Your task to perform on an android device: install app "Firefox Browser" Image 0: 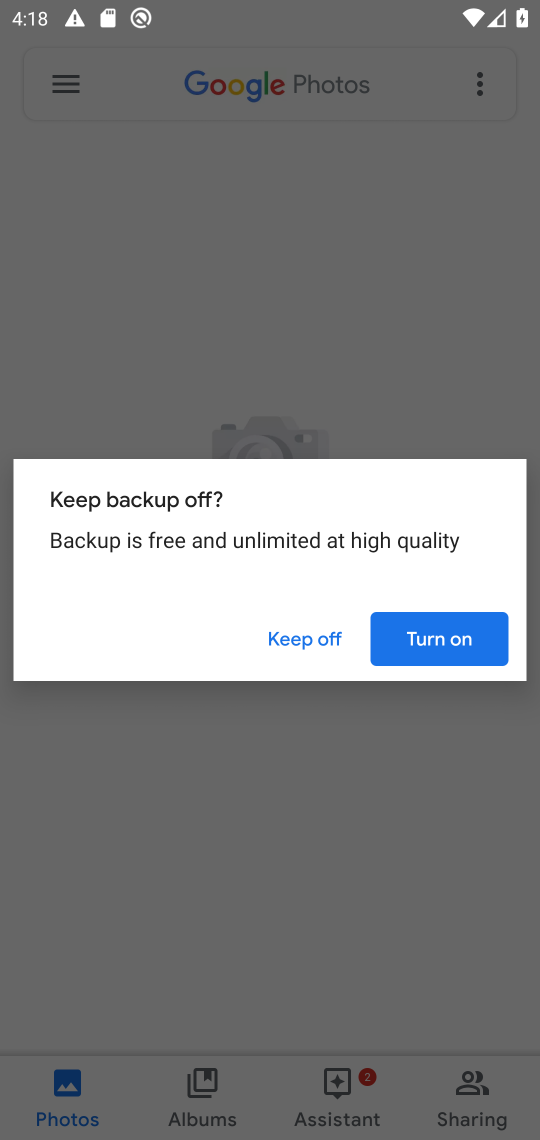
Step 0: click (282, 632)
Your task to perform on an android device: install app "Firefox Browser" Image 1: 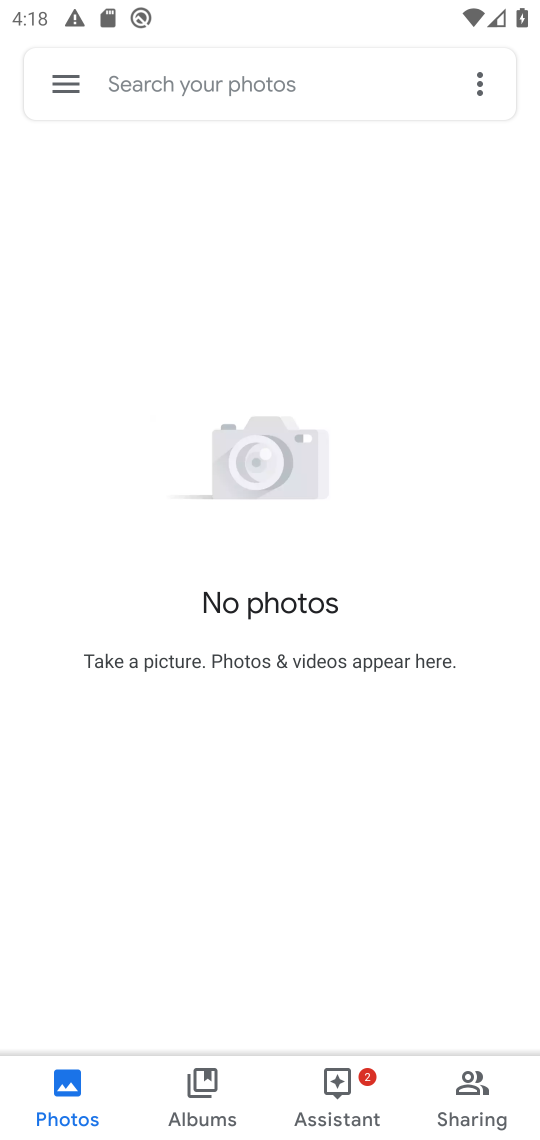
Step 1: press back button
Your task to perform on an android device: install app "Firefox Browser" Image 2: 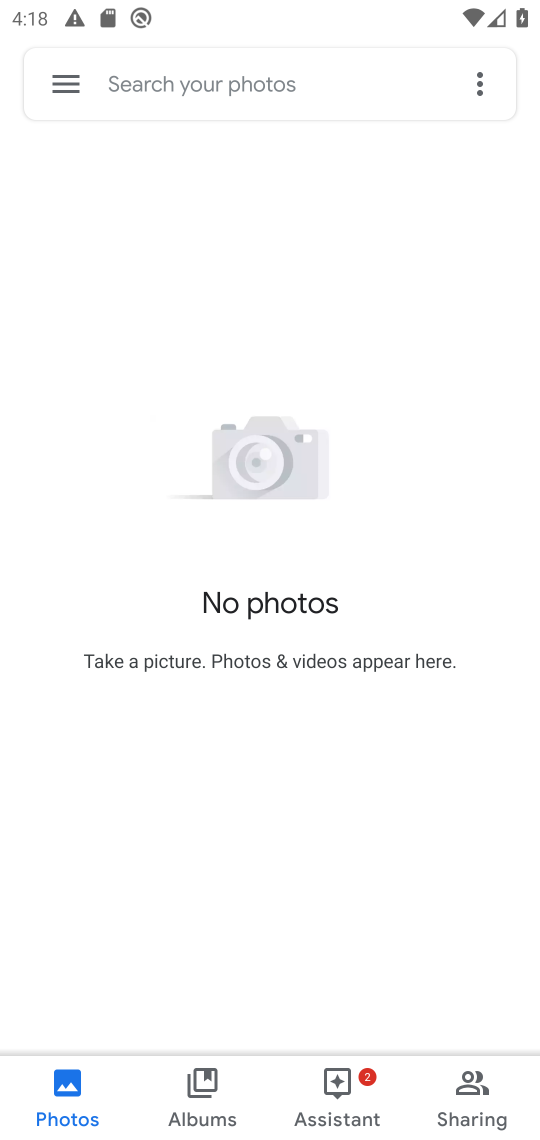
Step 2: press back button
Your task to perform on an android device: install app "Firefox Browser" Image 3: 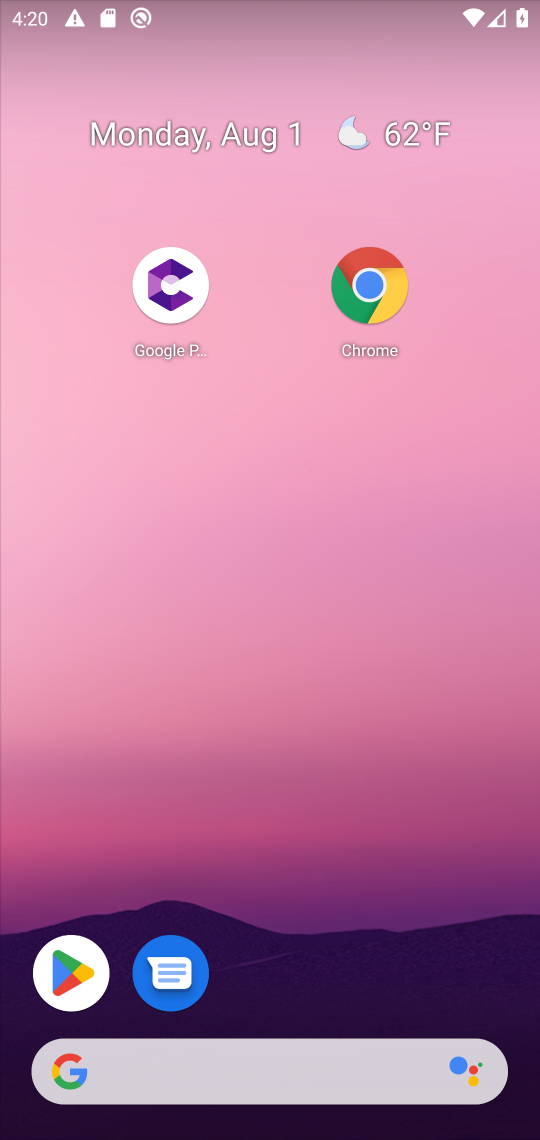
Step 3: drag from (228, 856) to (317, 70)
Your task to perform on an android device: install app "Firefox Browser" Image 4: 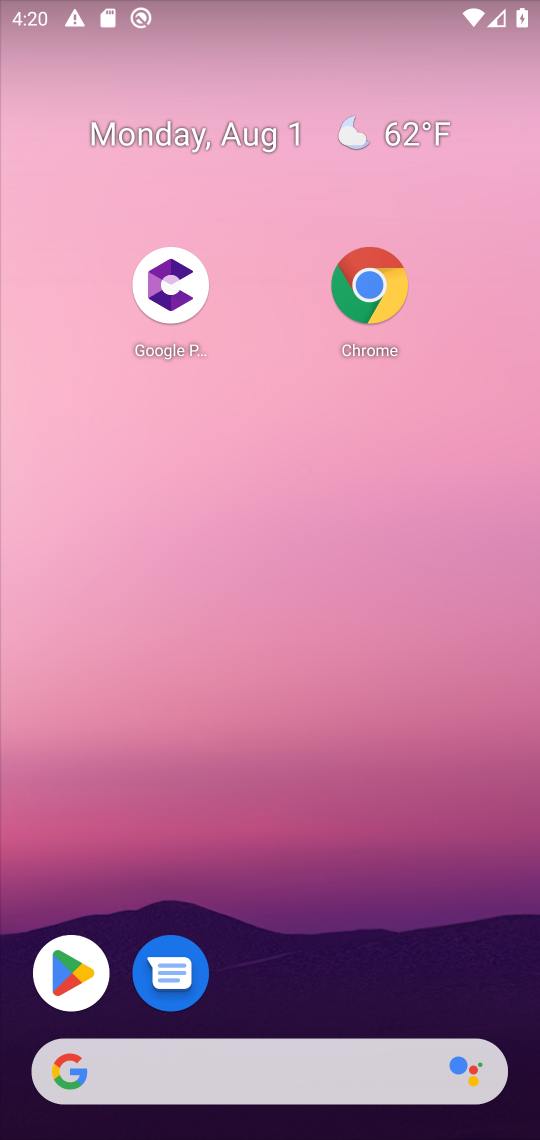
Step 4: drag from (374, 922) to (287, 185)
Your task to perform on an android device: install app "Firefox Browser" Image 5: 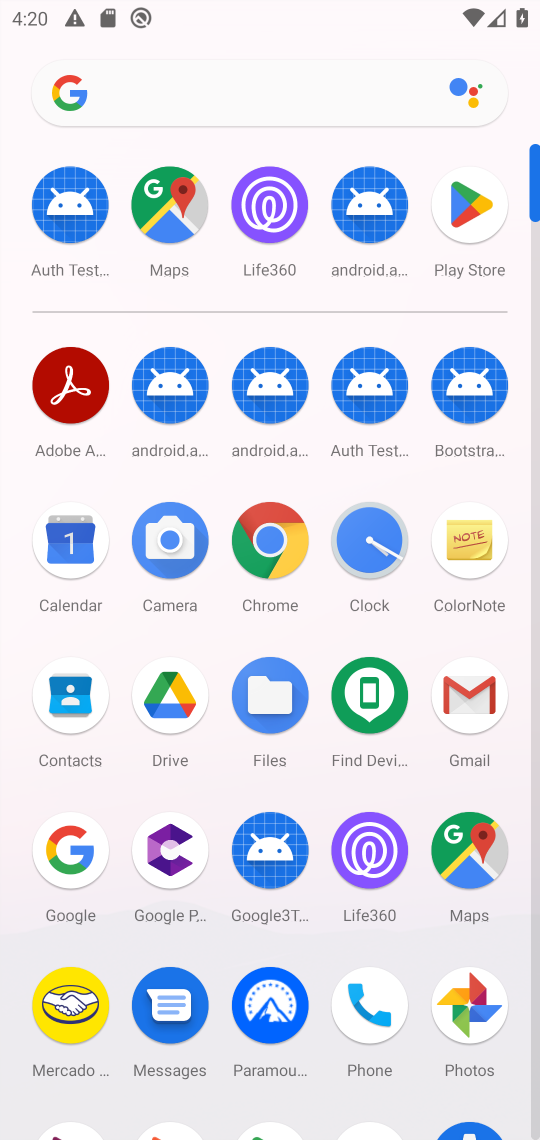
Step 5: click (529, 646)
Your task to perform on an android device: install app "Firefox Browser" Image 6: 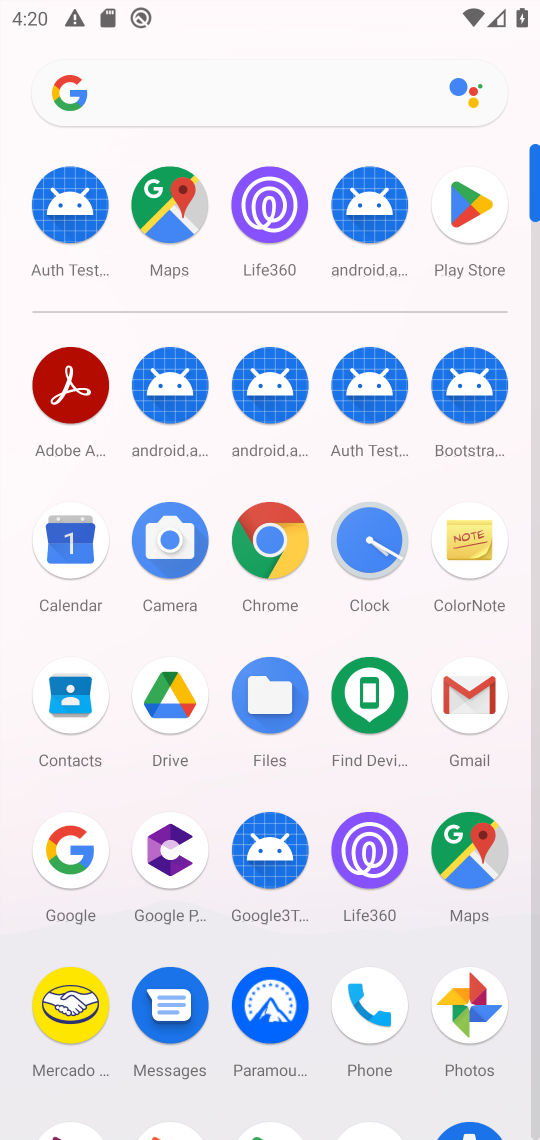
Step 6: click (456, 216)
Your task to perform on an android device: install app "Firefox Browser" Image 7: 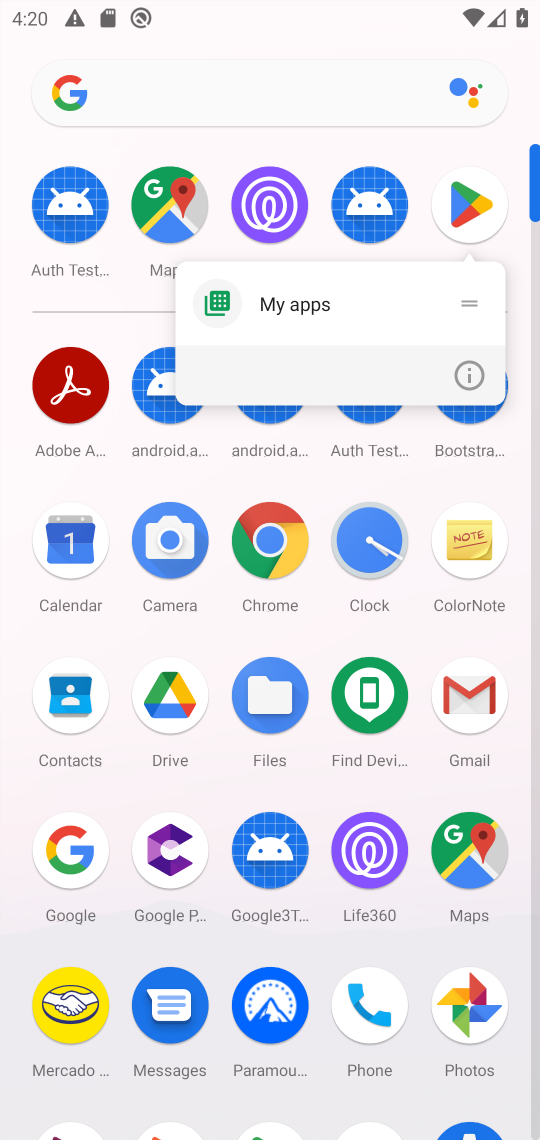
Step 7: click (460, 220)
Your task to perform on an android device: install app "Firefox Browser" Image 8: 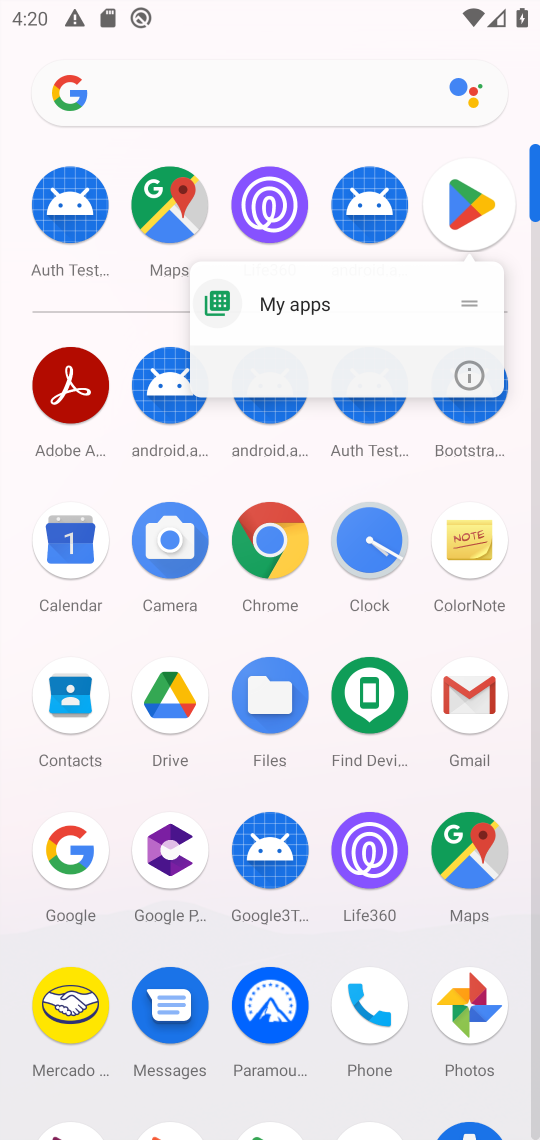
Step 8: click (460, 221)
Your task to perform on an android device: install app "Firefox Browser" Image 9: 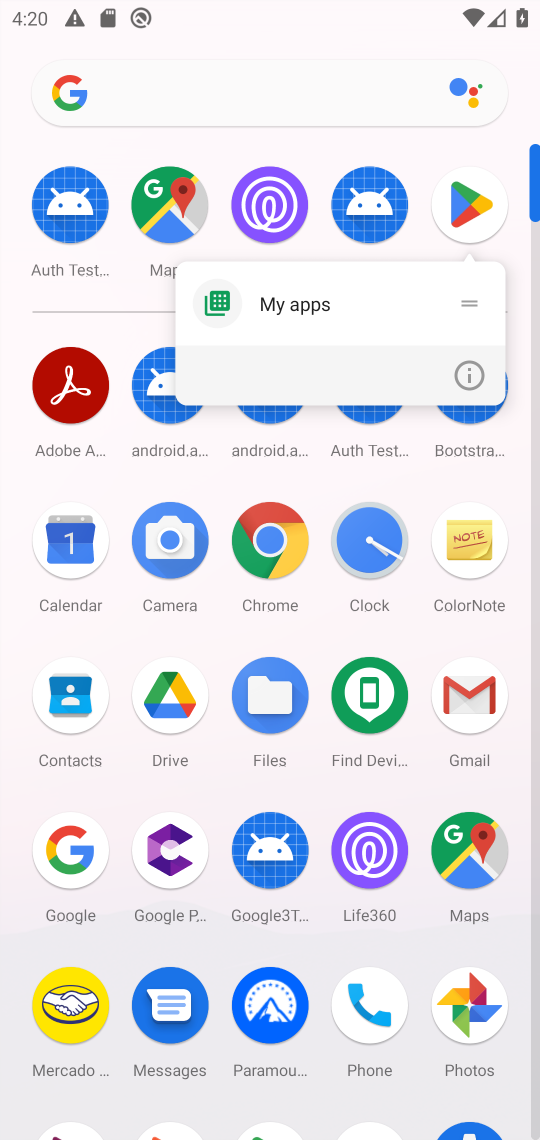
Step 9: click (460, 221)
Your task to perform on an android device: install app "Firefox Browser" Image 10: 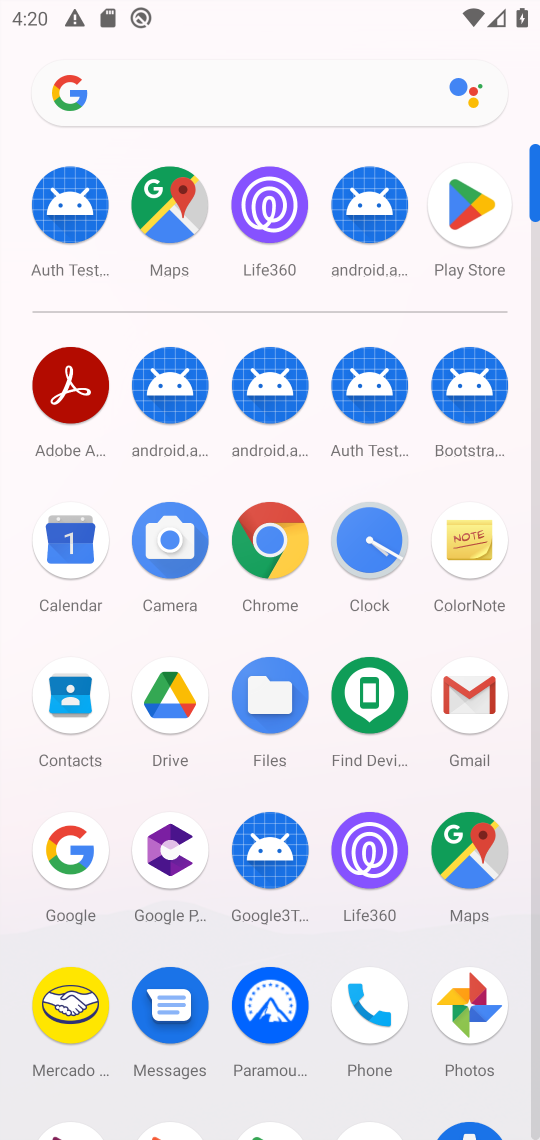
Step 10: click (459, 221)
Your task to perform on an android device: install app "Firefox Browser" Image 11: 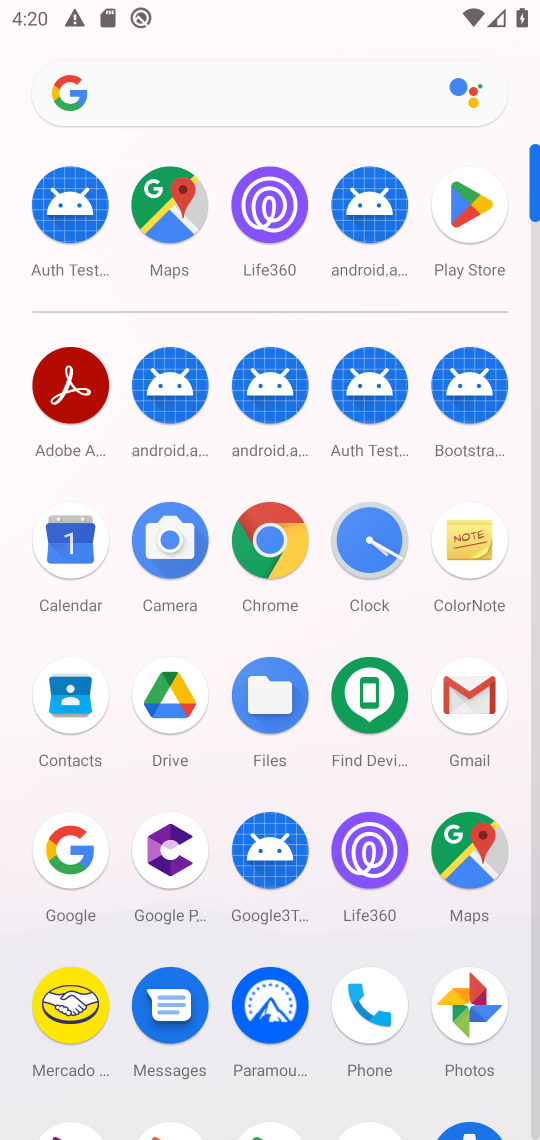
Step 11: click (457, 221)
Your task to perform on an android device: install app "Firefox Browser" Image 12: 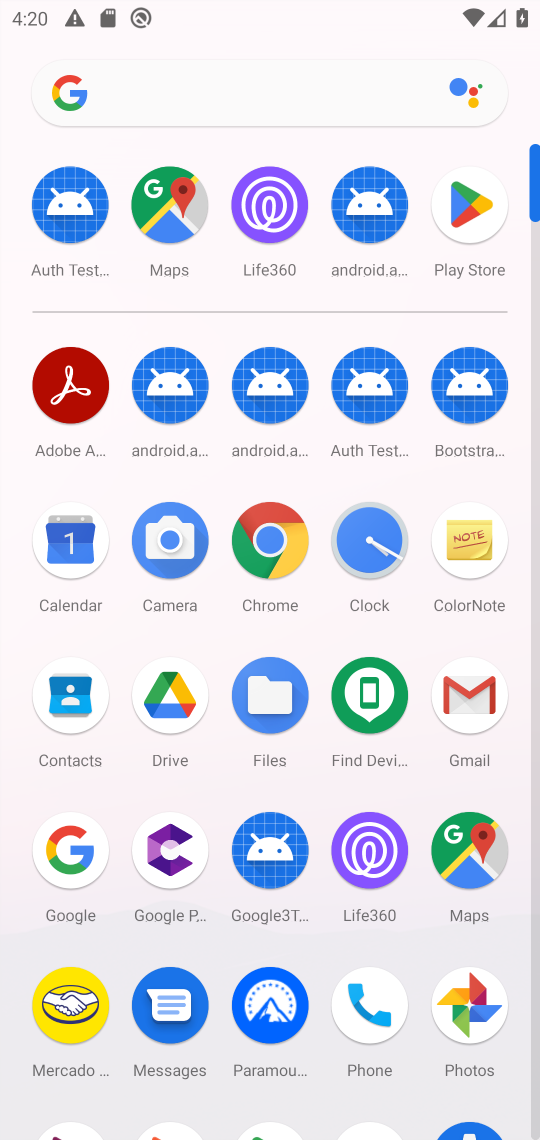
Step 12: click (457, 221)
Your task to perform on an android device: install app "Firefox Browser" Image 13: 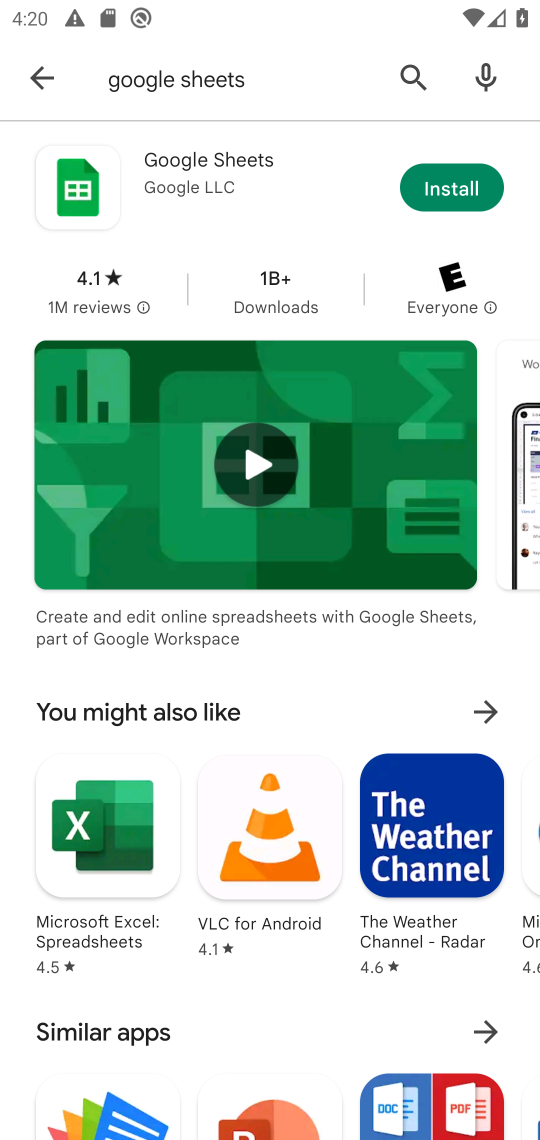
Step 13: click (453, 232)
Your task to perform on an android device: install app "Firefox Browser" Image 14: 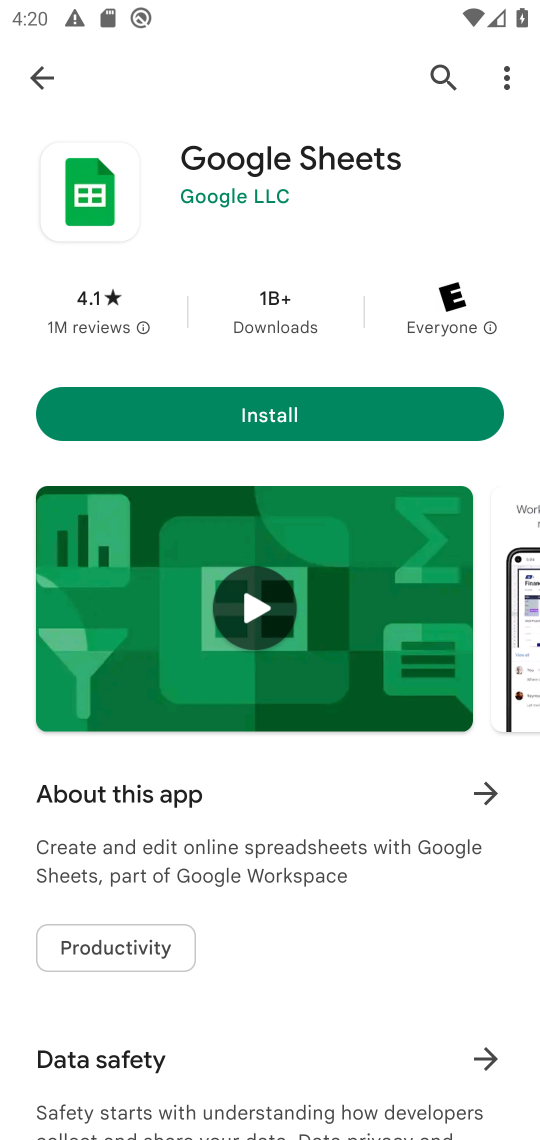
Step 14: click (40, 83)
Your task to perform on an android device: install app "Firefox Browser" Image 15: 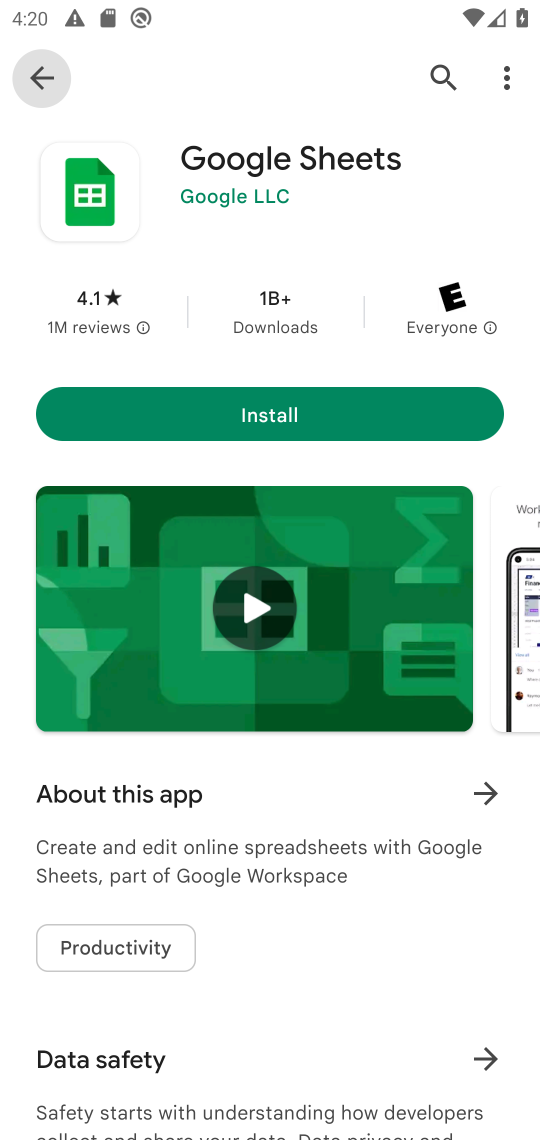
Step 15: click (38, 82)
Your task to perform on an android device: install app "Firefox Browser" Image 16: 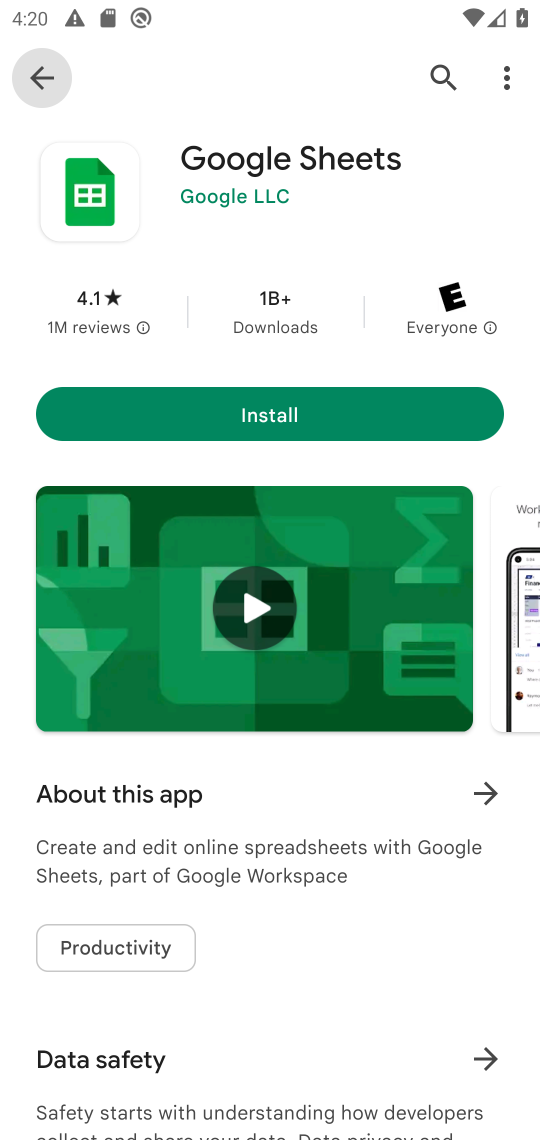
Step 16: click (35, 79)
Your task to perform on an android device: install app "Firefox Browser" Image 17: 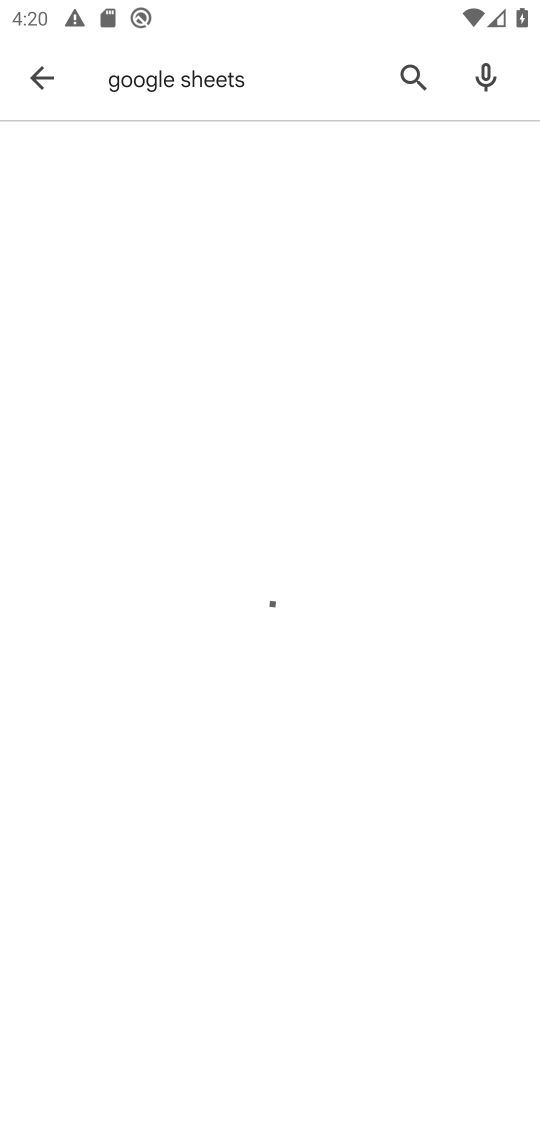
Step 17: click (38, 76)
Your task to perform on an android device: install app "Firefox Browser" Image 18: 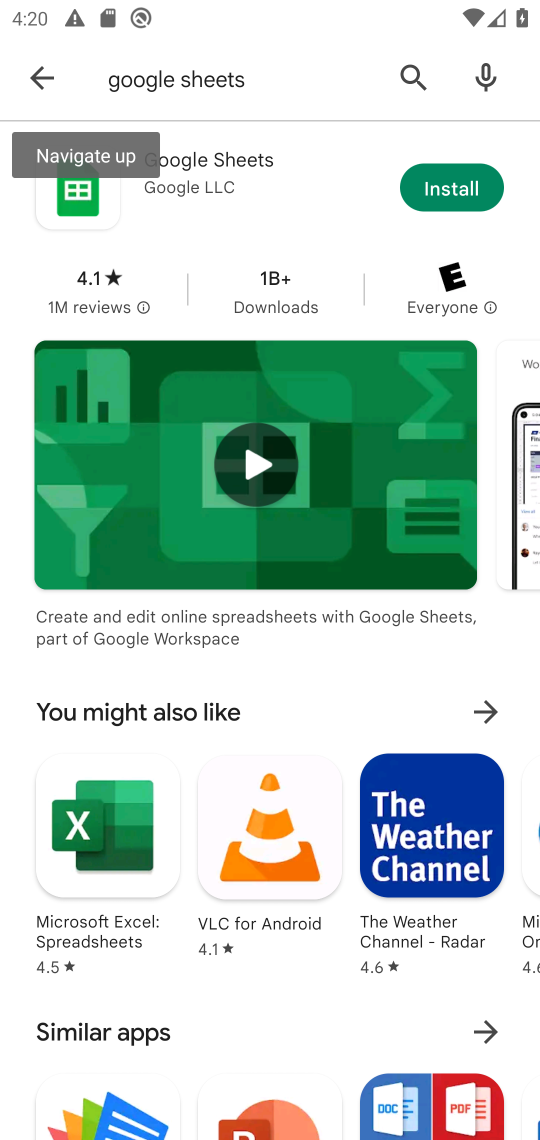
Step 18: click (1, 69)
Your task to perform on an android device: install app "Firefox Browser" Image 19: 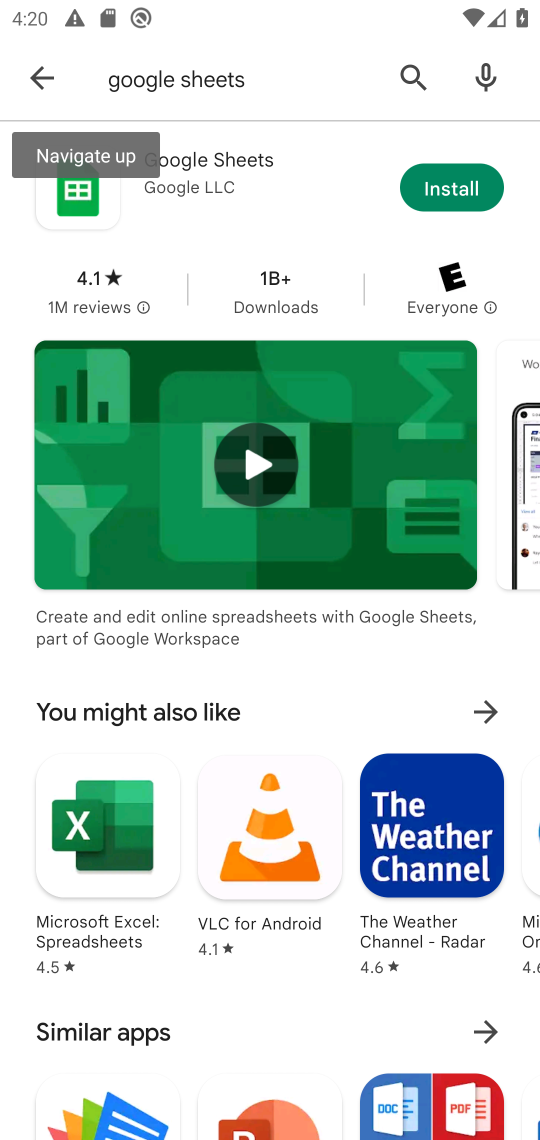
Step 19: click (30, 50)
Your task to perform on an android device: install app "Firefox Browser" Image 20: 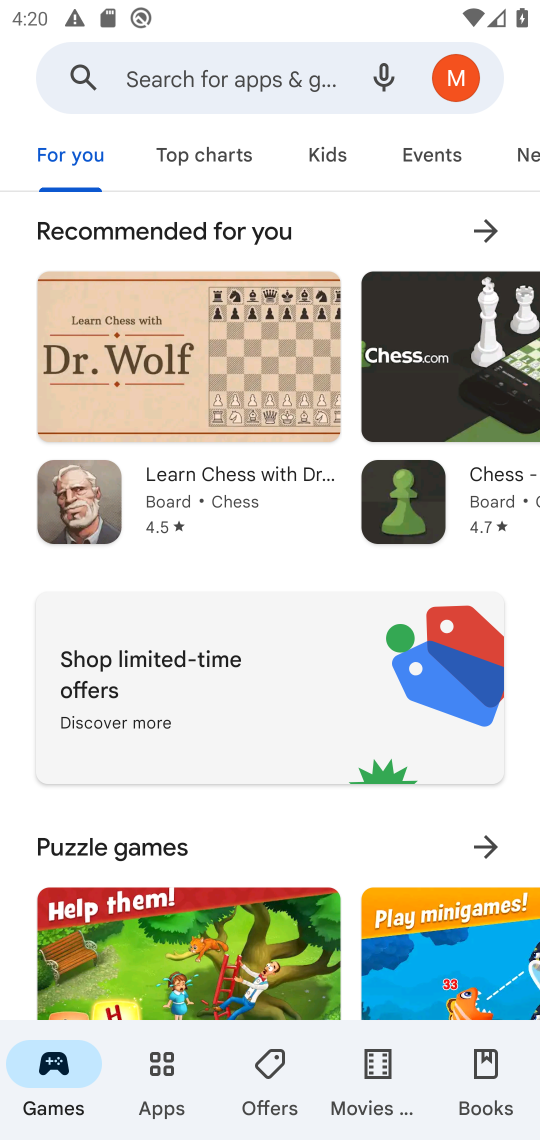
Step 20: click (183, 73)
Your task to perform on an android device: install app "Firefox Browser" Image 21: 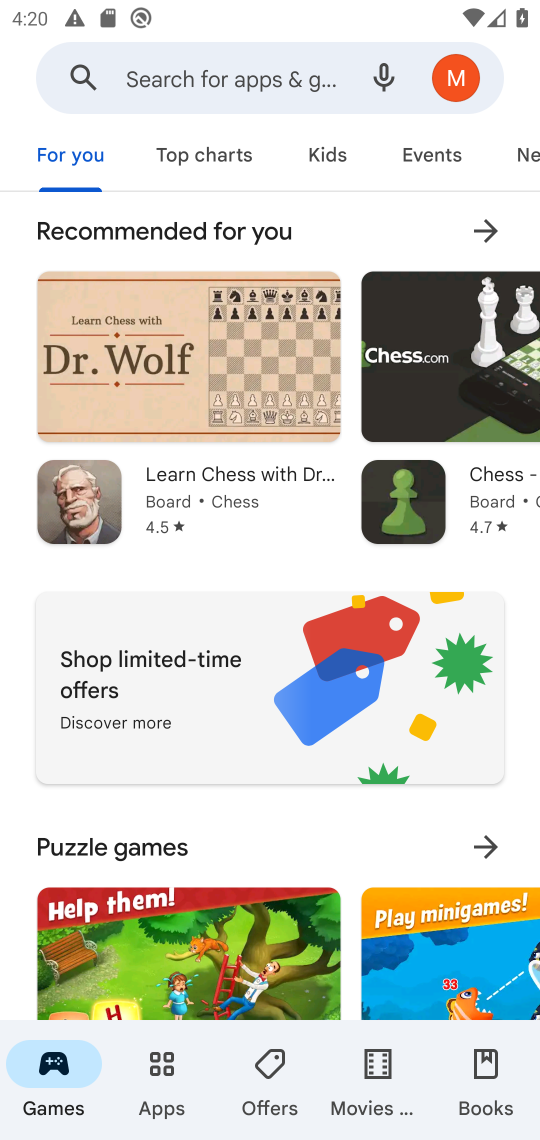
Step 21: click (184, 70)
Your task to perform on an android device: install app "Firefox Browser" Image 22: 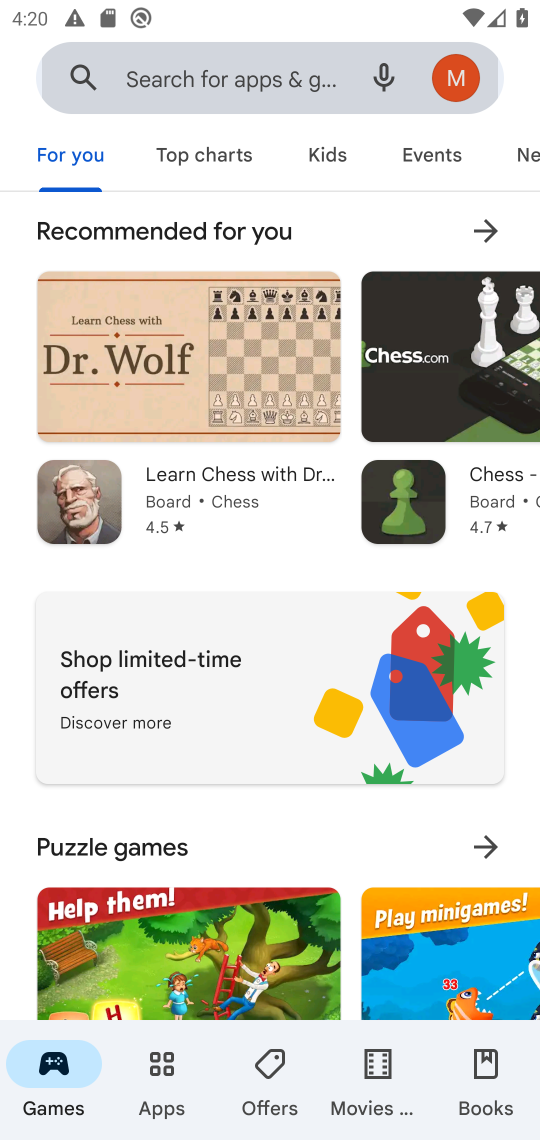
Step 22: click (184, 70)
Your task to perform on an android device: install app "Firefox Browser" Image 23: 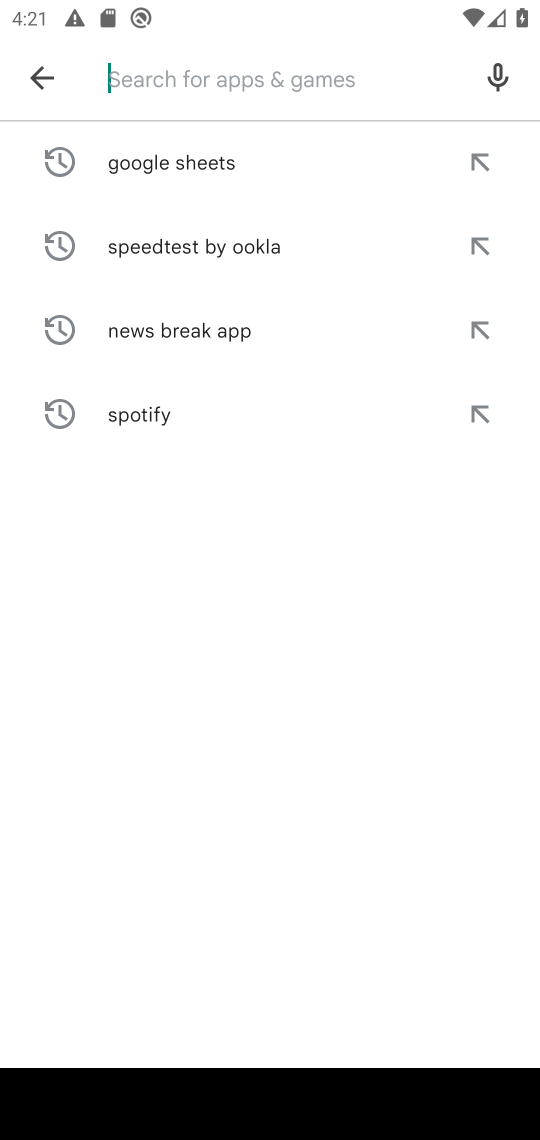
Step 23: type "firefox browser"
Your task to perform on an android device: install app "Firefox Browser" Image 24: 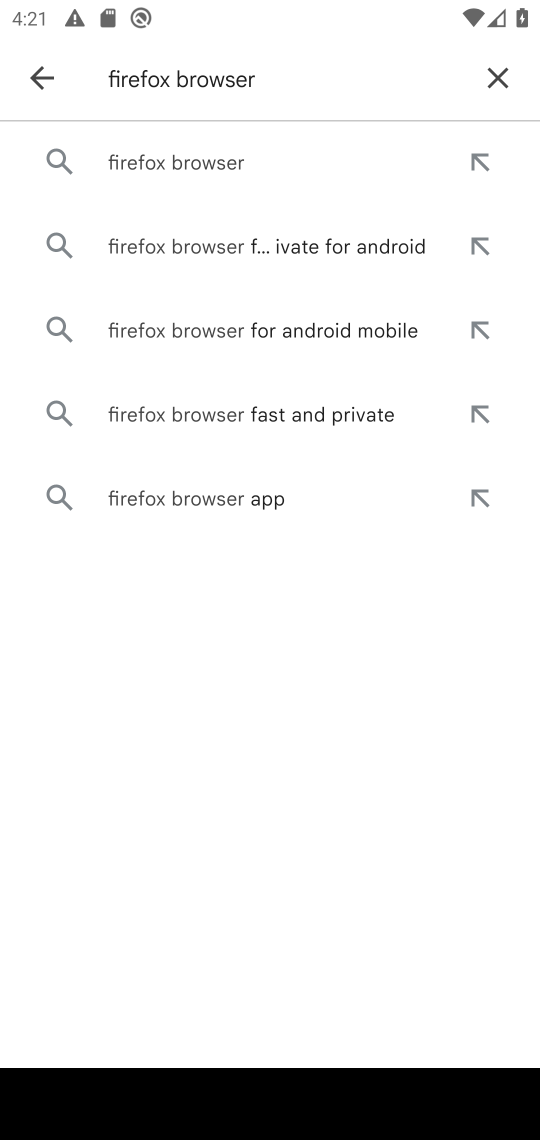
Step 24: click (170, 153)
Your task to perform on an android device: install app "Firefox Browser" Image 25: 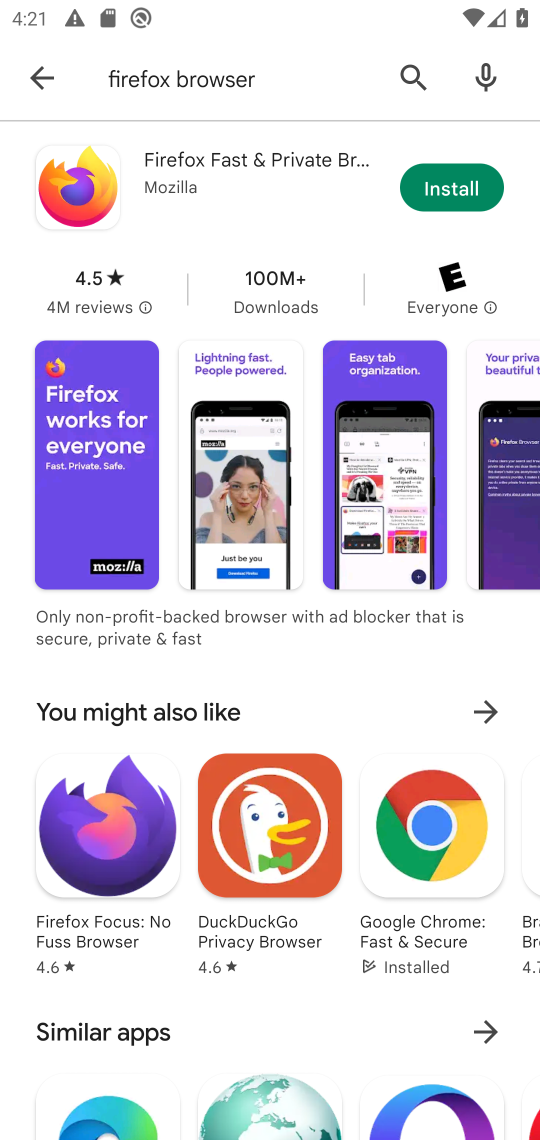
Step 25: click (489, 187)
Your task to perform on an android device: install app "Firefox Browser" Image 26: 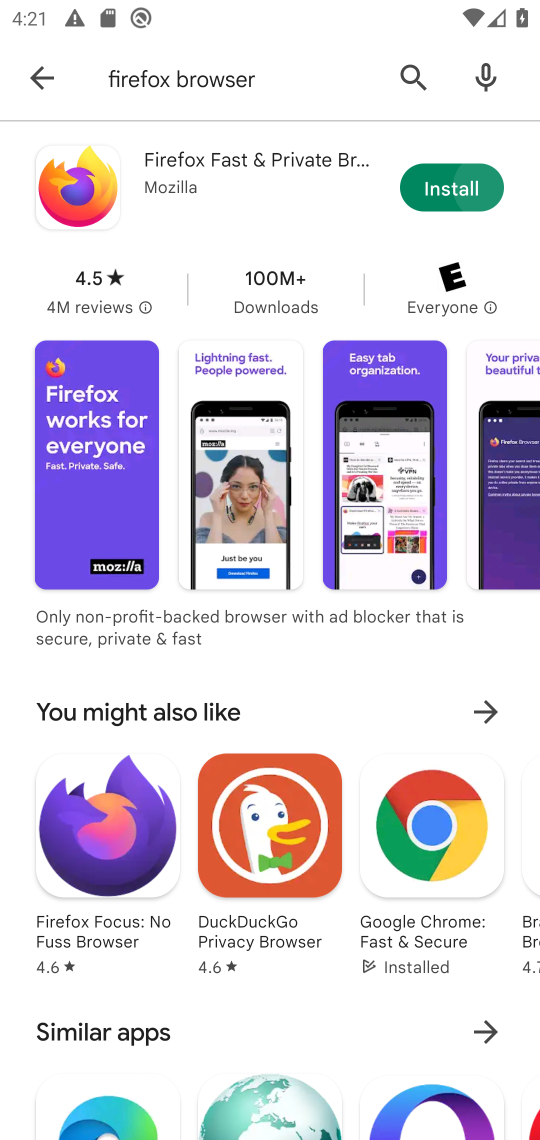
Step 26: click (485, 187)
Your task to perform on an android device: install app "Firefox Browser" Image 27: 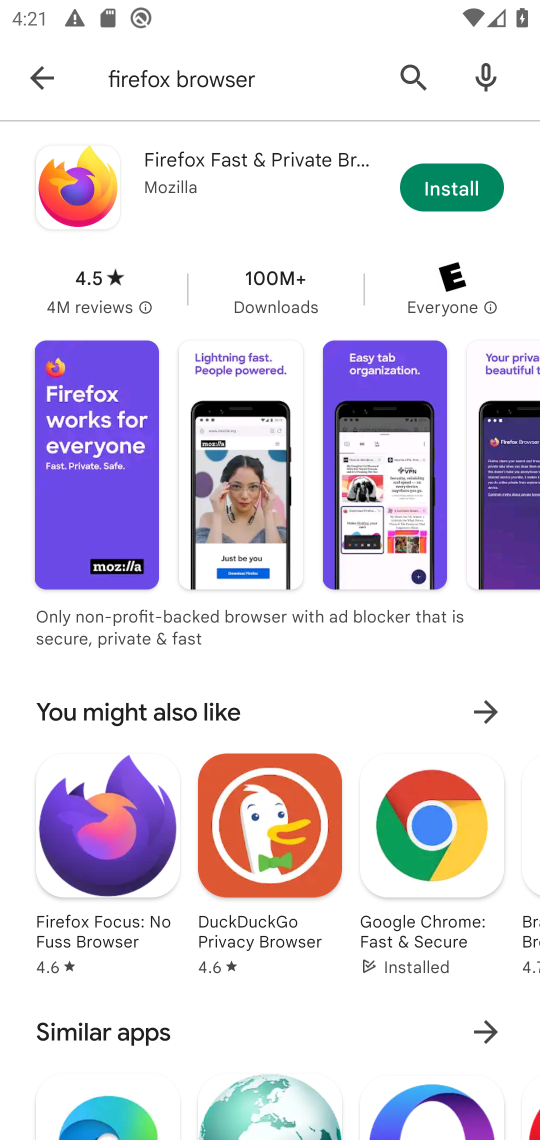
Step 27: click (430, 184)
Your task to perform on an android device: install app "Firefox Browser" Image 28: 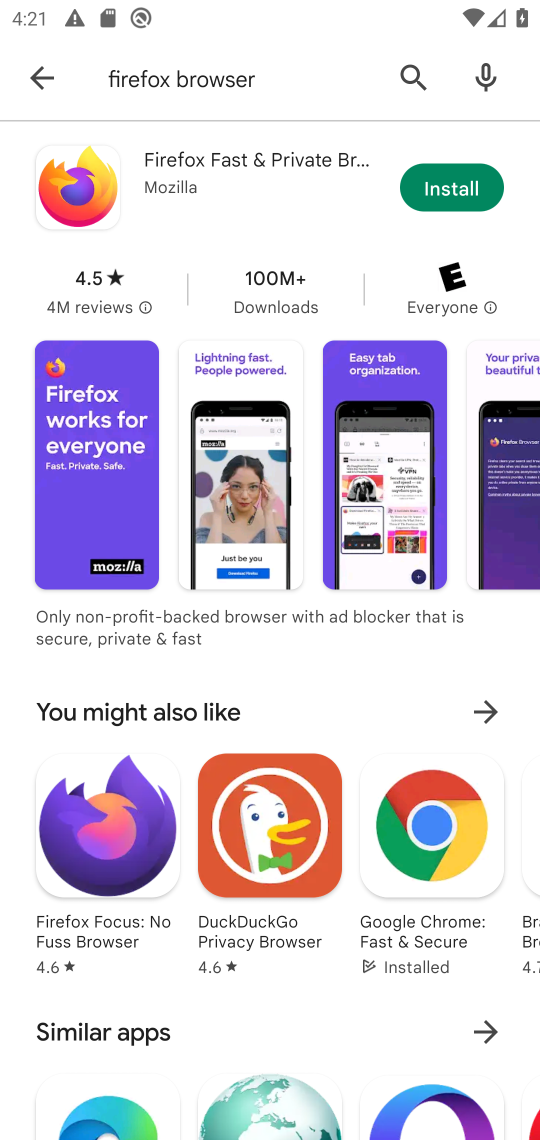
Step 28: click (430, 186)
Your task to perform on an android device: install app "Firefox Browser" Image 29: 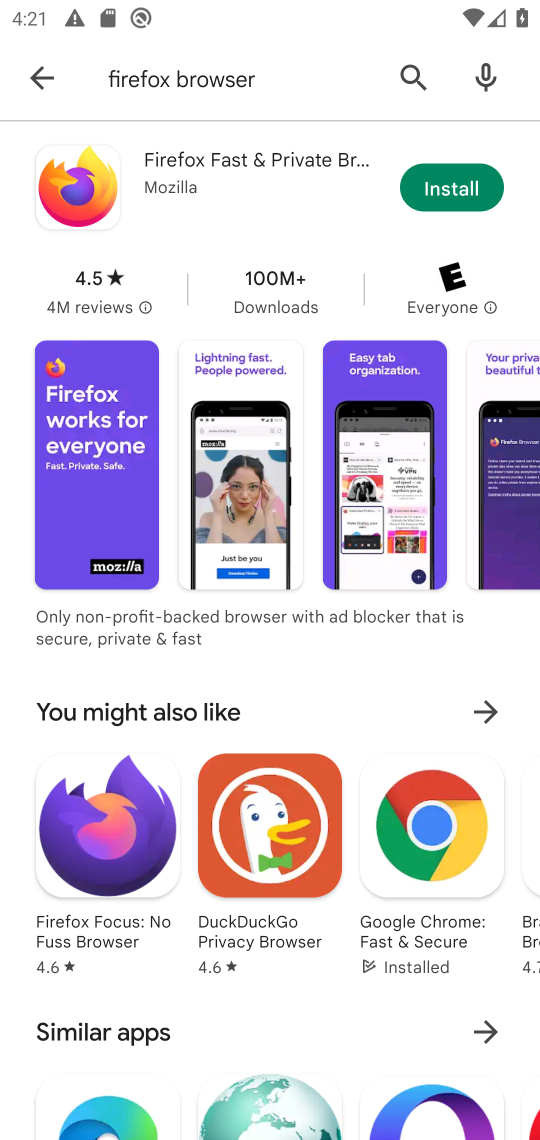
Step 29: click (475, 193)
Your task to perform on an android device: install app "Firefox Browser" Image 30: 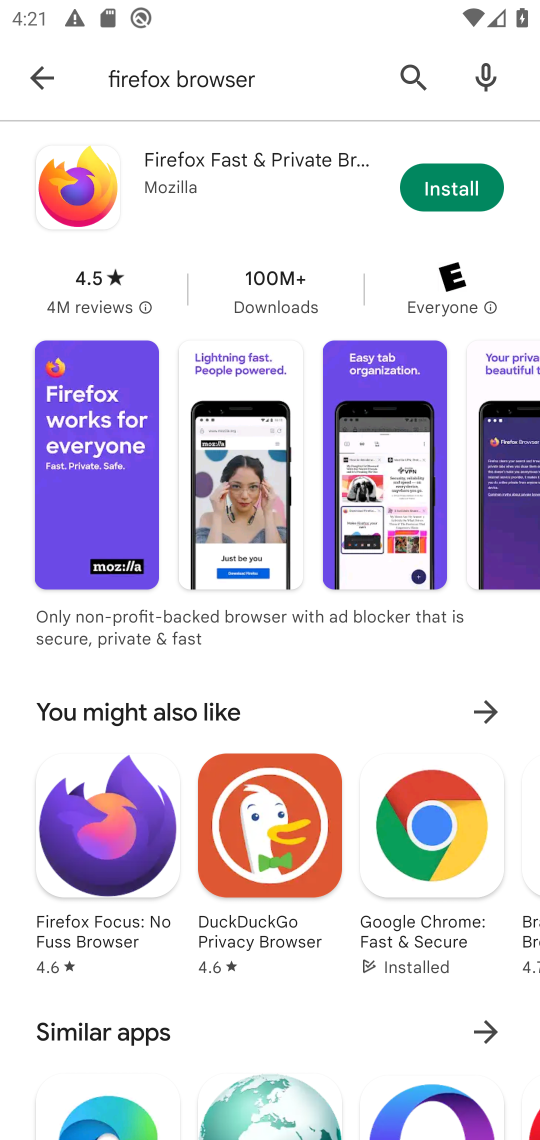
Step 30: click (447, 235)
Your task to perform on an android device: install app "Firefox Browser" Image 31: 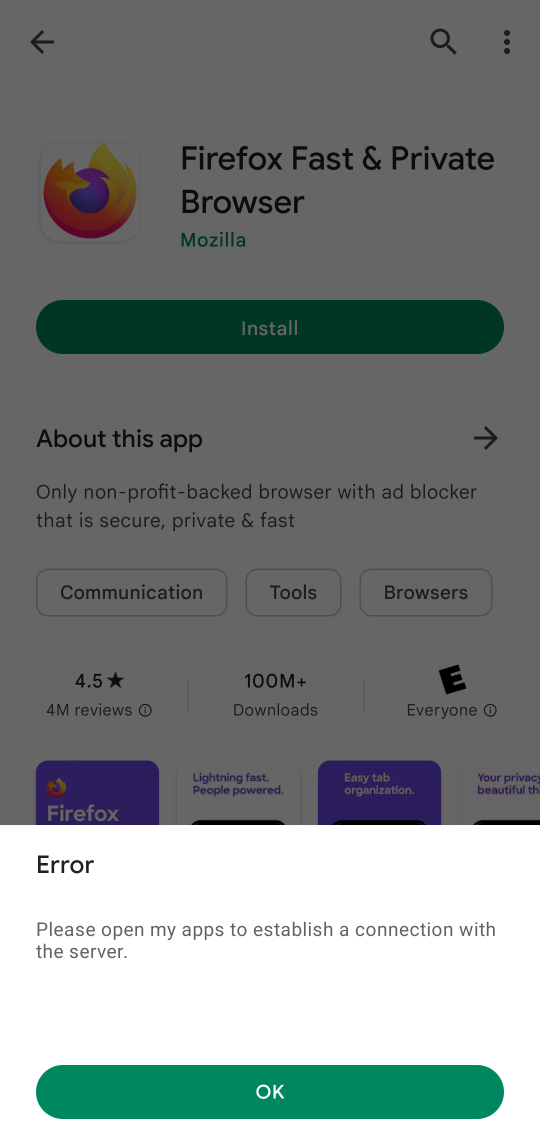
Step 31: click (273, 1095)
Your task to perform on an android device: install app "Firefox Browser" Image 32: 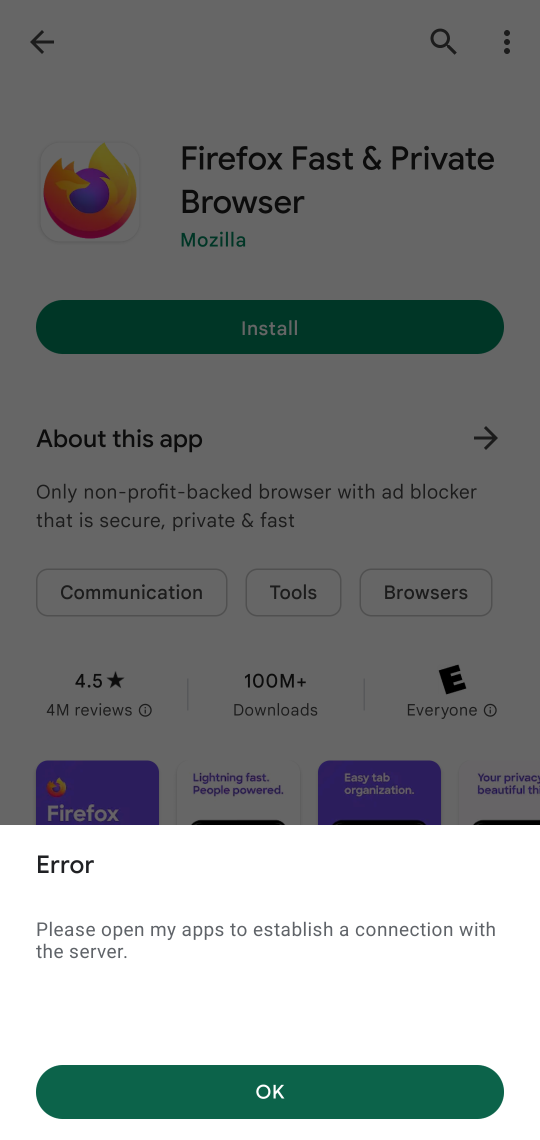
Step 32: click (273, 1095)
Your task to perform on an android device: install app "Firefox Browser" Image 33: 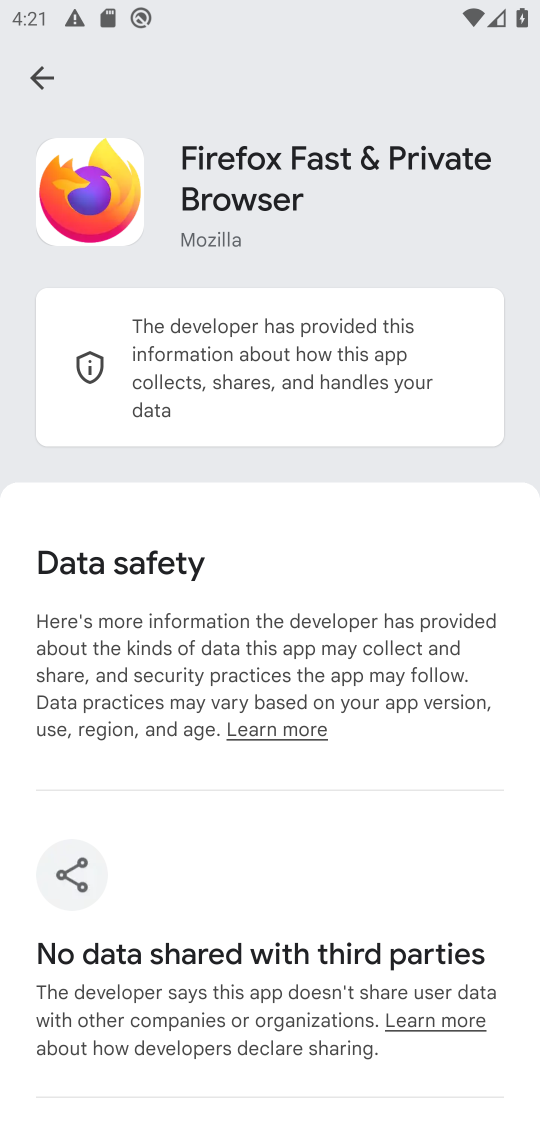
Step 33: task complete